Your task to perform on an android device: Add acer predator to the cart on amazon.com Image 0: 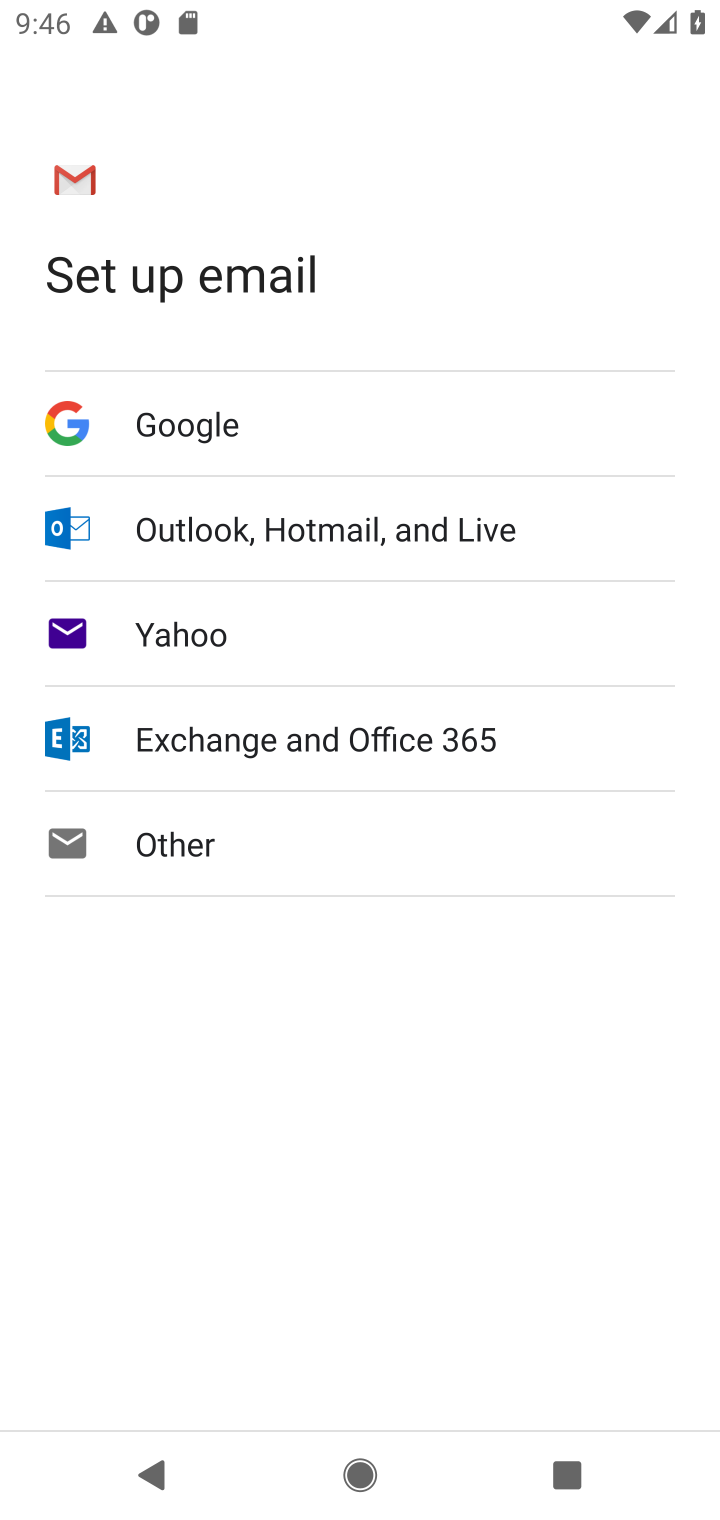
Step 0: press home button
Your task to perform on an android device: Add acer predator to the cart on amazon.com Image 1: 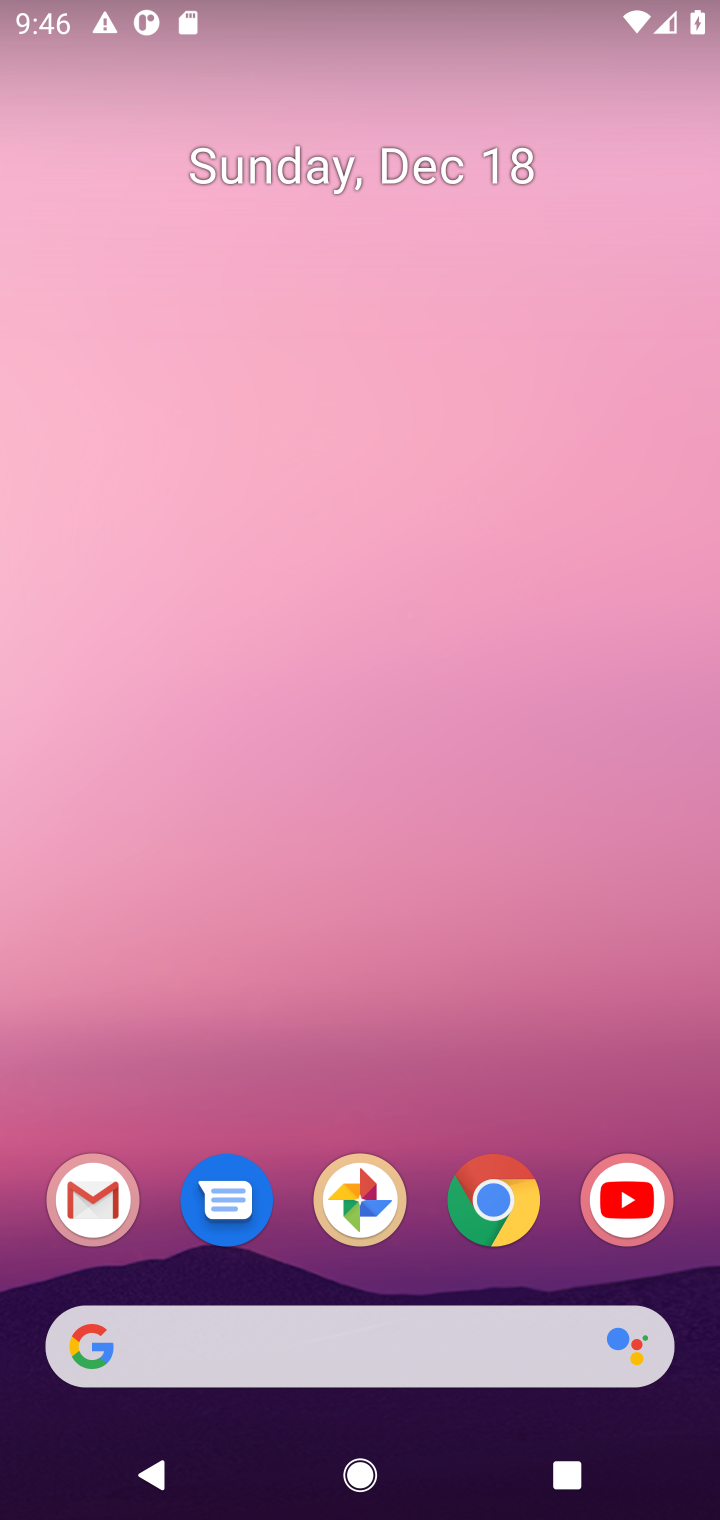
Step 1: click (495, 1199)
Your task to perform on an android device: Add acer predator to the cart on amazon.com Image 2: 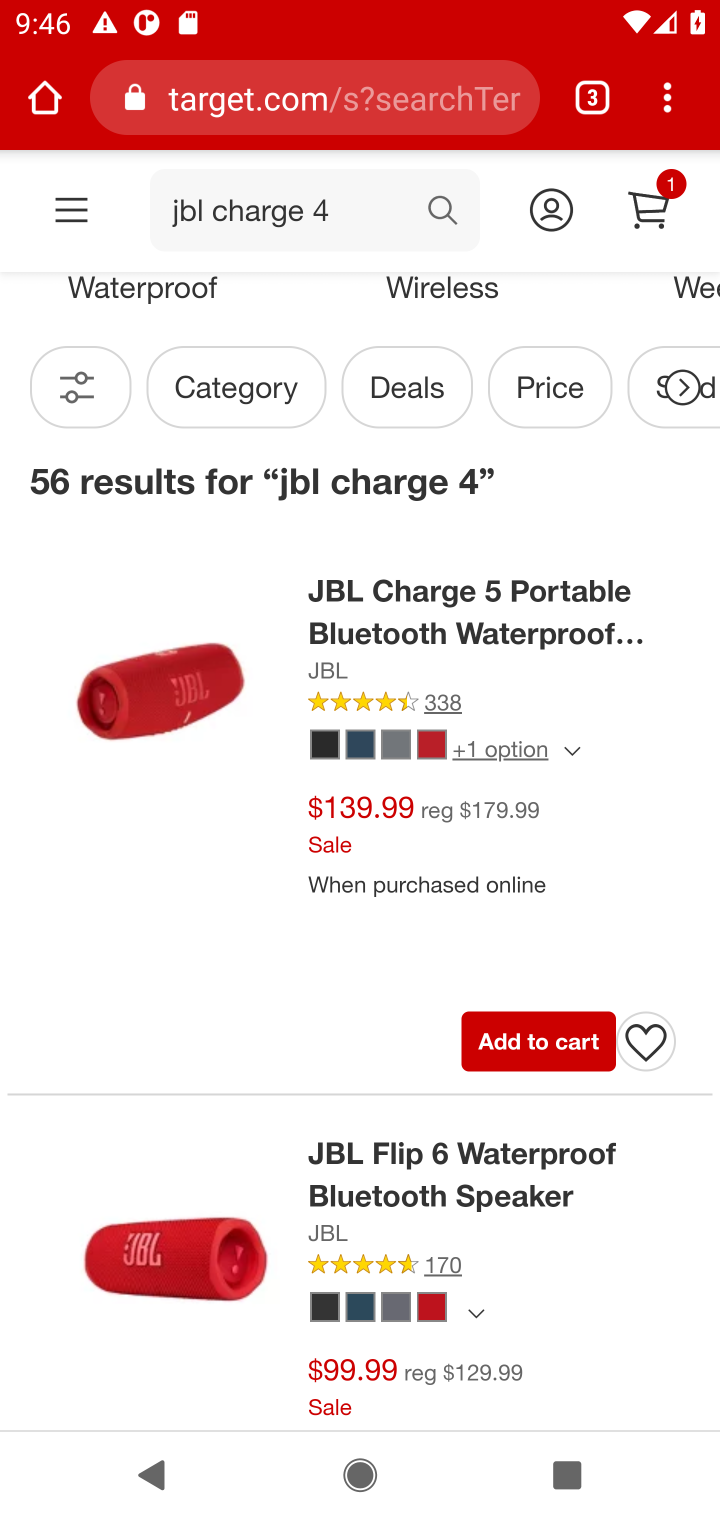
Step 2: click (236, 114)
Your task to perform on an android device: Add acer predator to the cart on amazon.com Image 3: 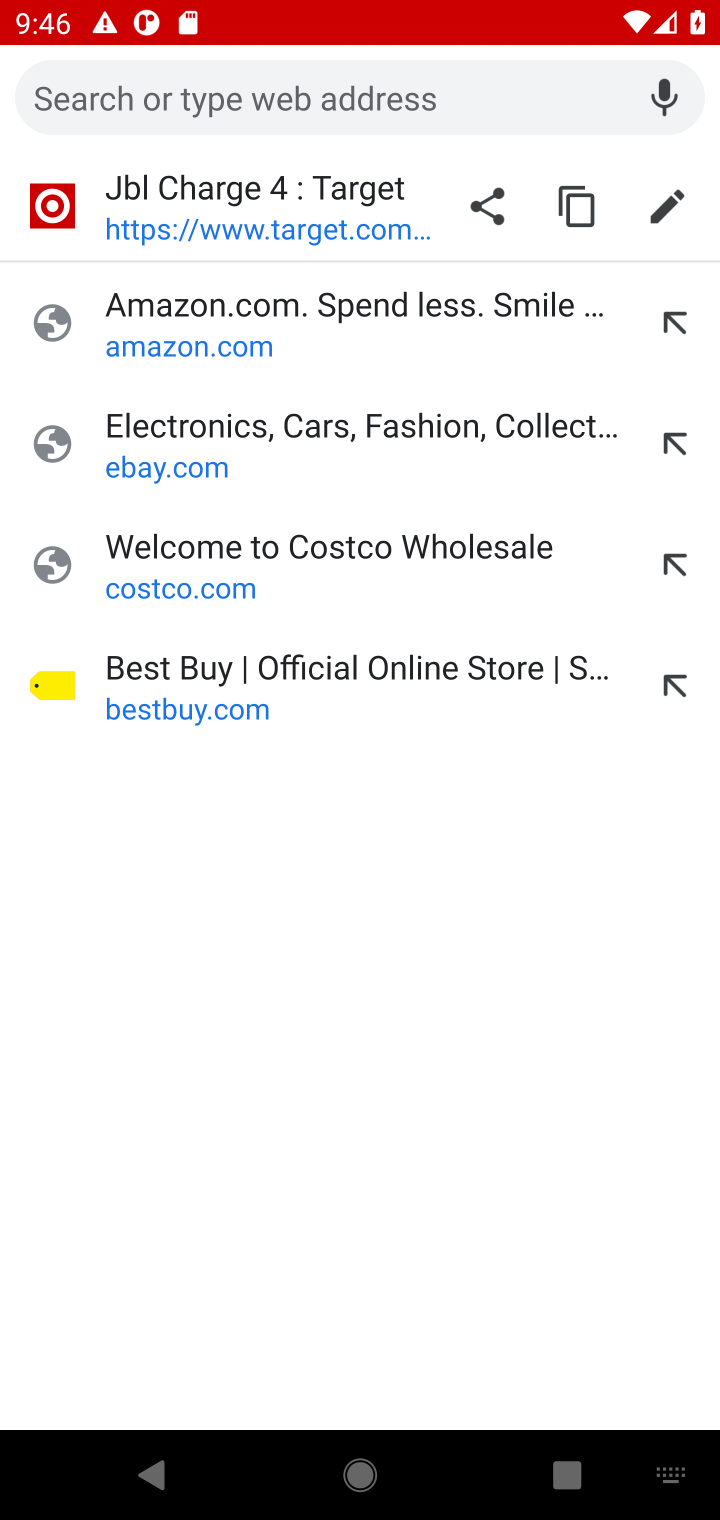
Step 3: click (144, 333)
Your task to perform on an android device: Add acer predator to the cart on amazon.com Image 4: 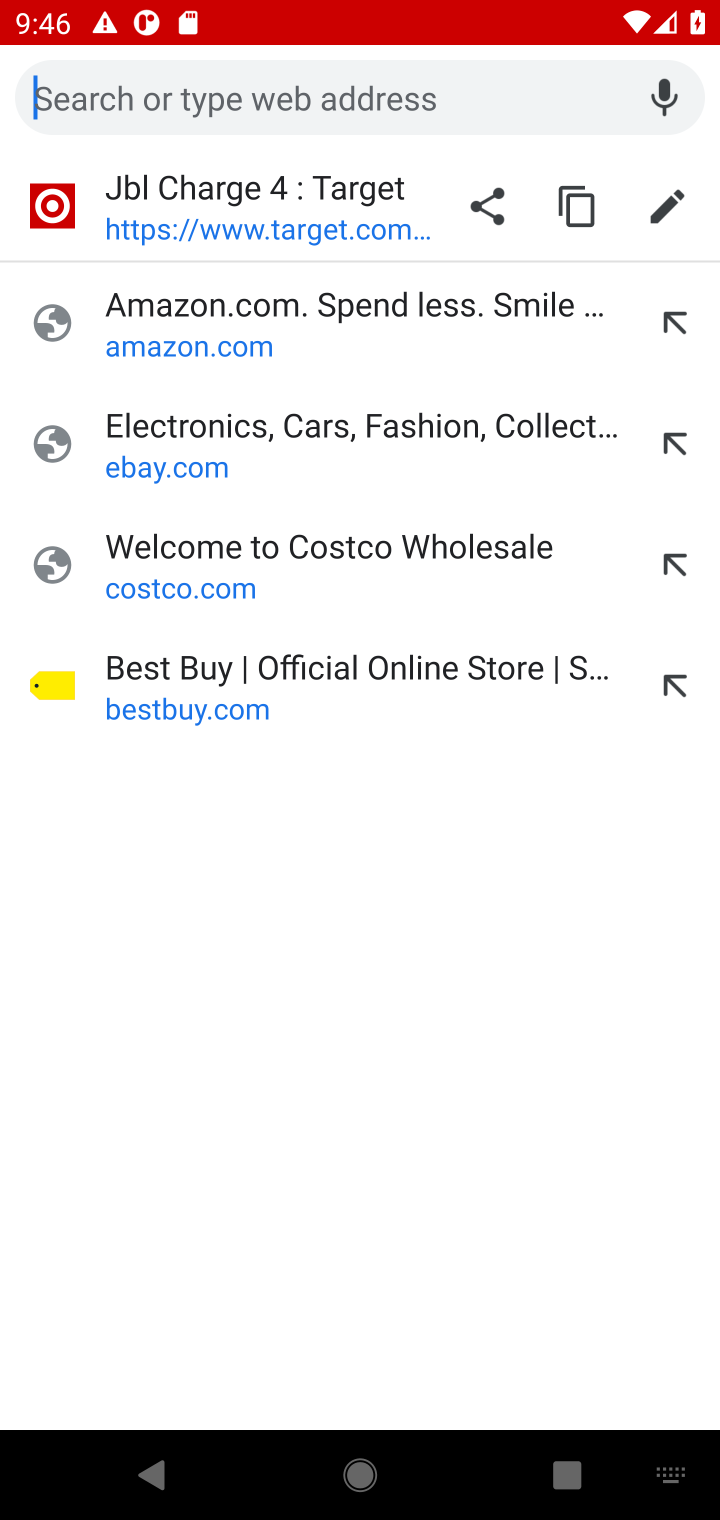
Step 4: click (172, 325)
Your task to perform on an android device: Add acer predator to the cart on amazon.com Image 5: 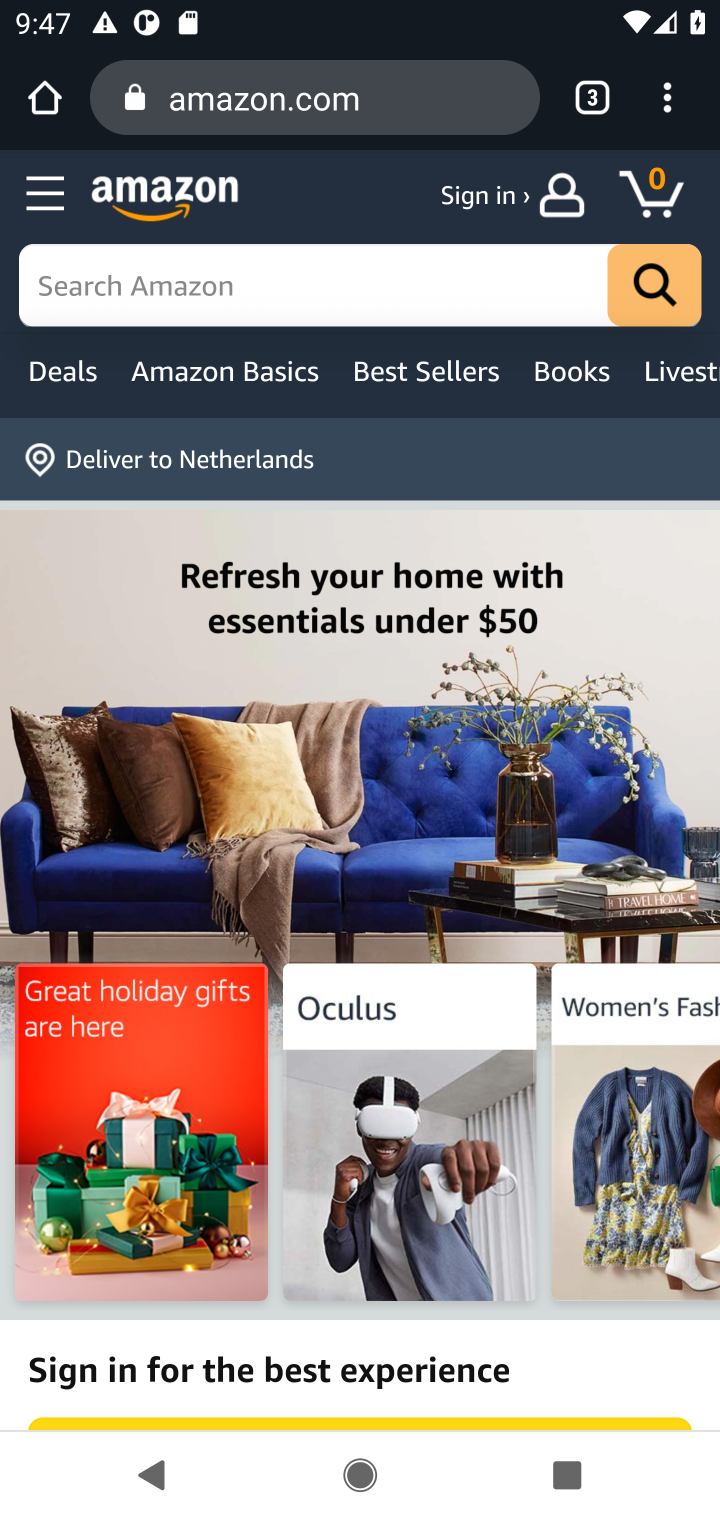
Step 5: click (153, 286)
Your task to perform on an android device: Add acer predator to the cart on amazon.com Image 6: 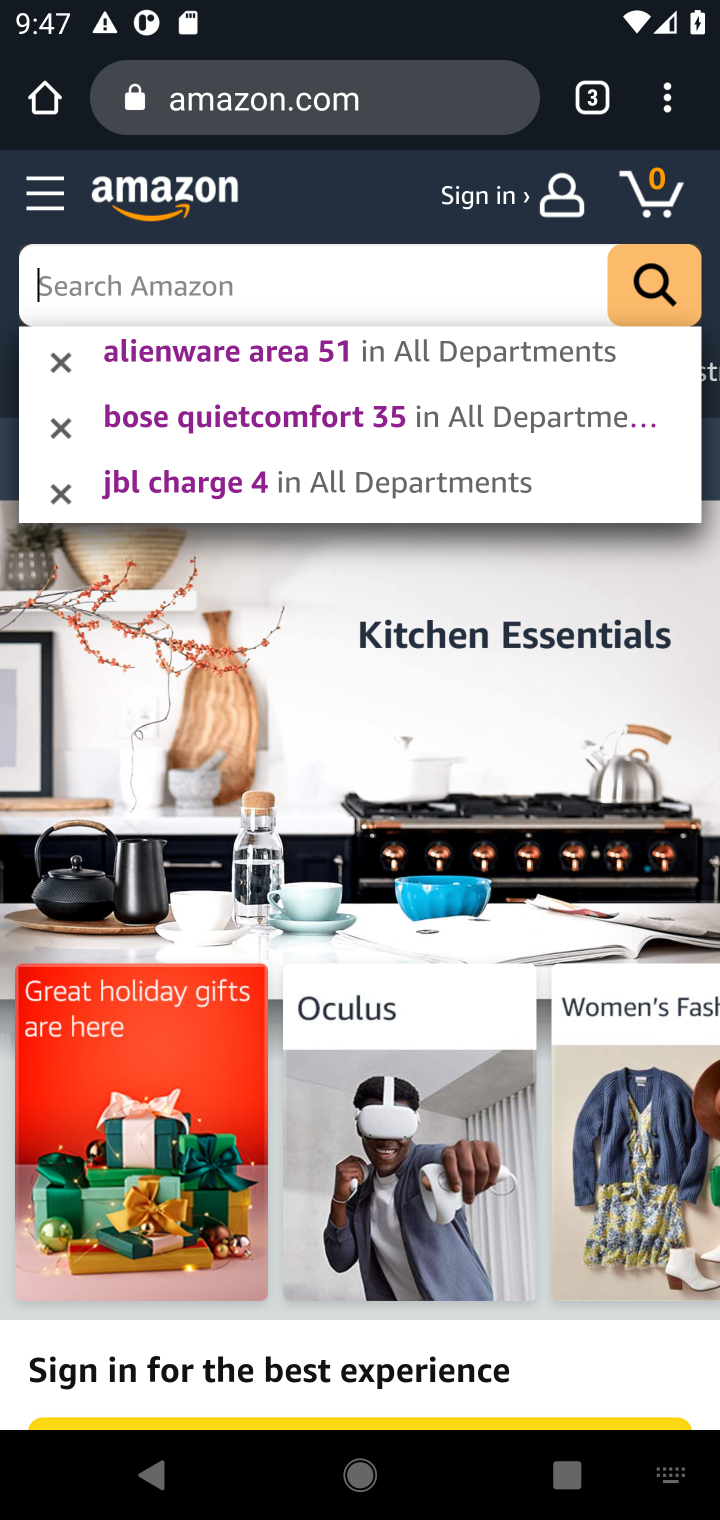
Step 6: type "acer predator"
Your task to perform on an android device: Add acer predator to the cart on amazon.com Image 7: 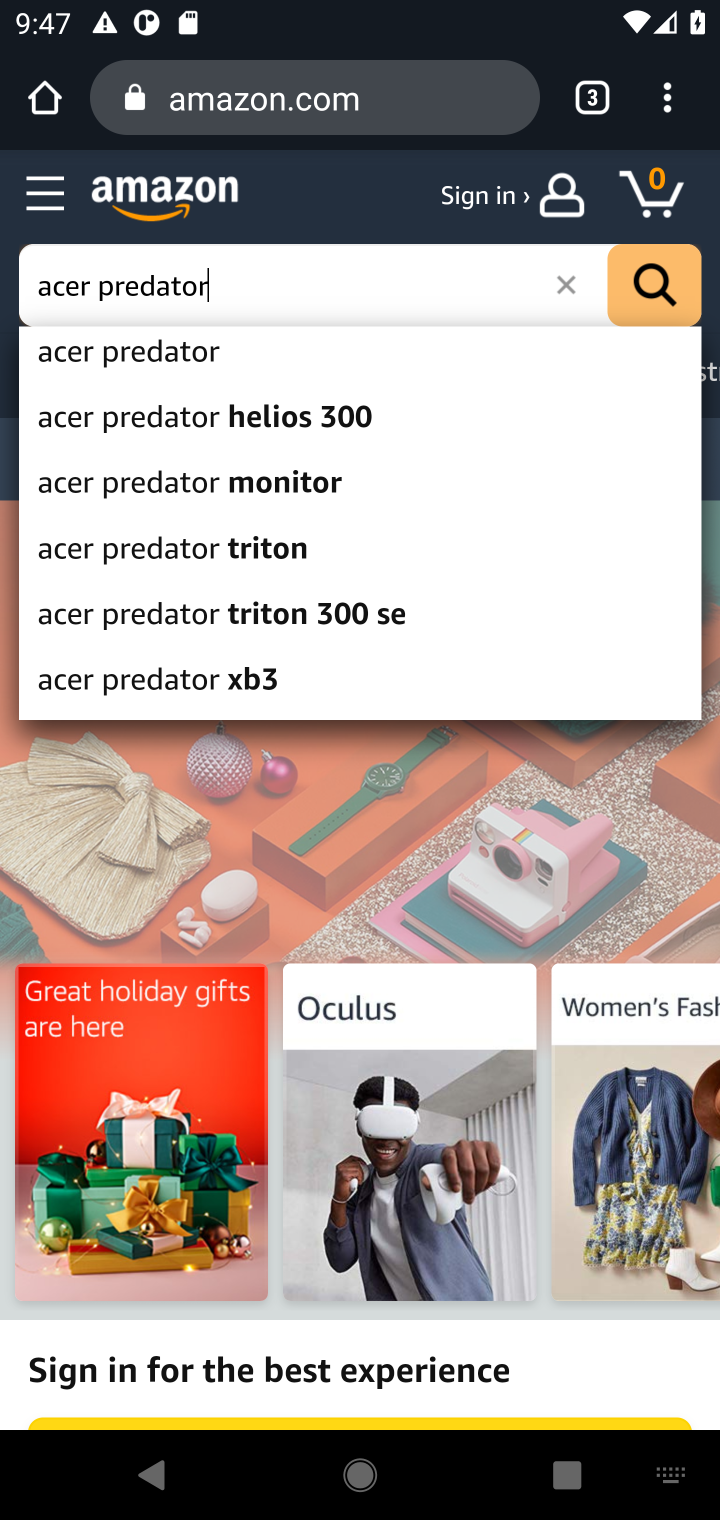
Step 7: click (131, 350)
Your task to perform on an android device: Add acer predator to the cart on amazon.com Image 8: 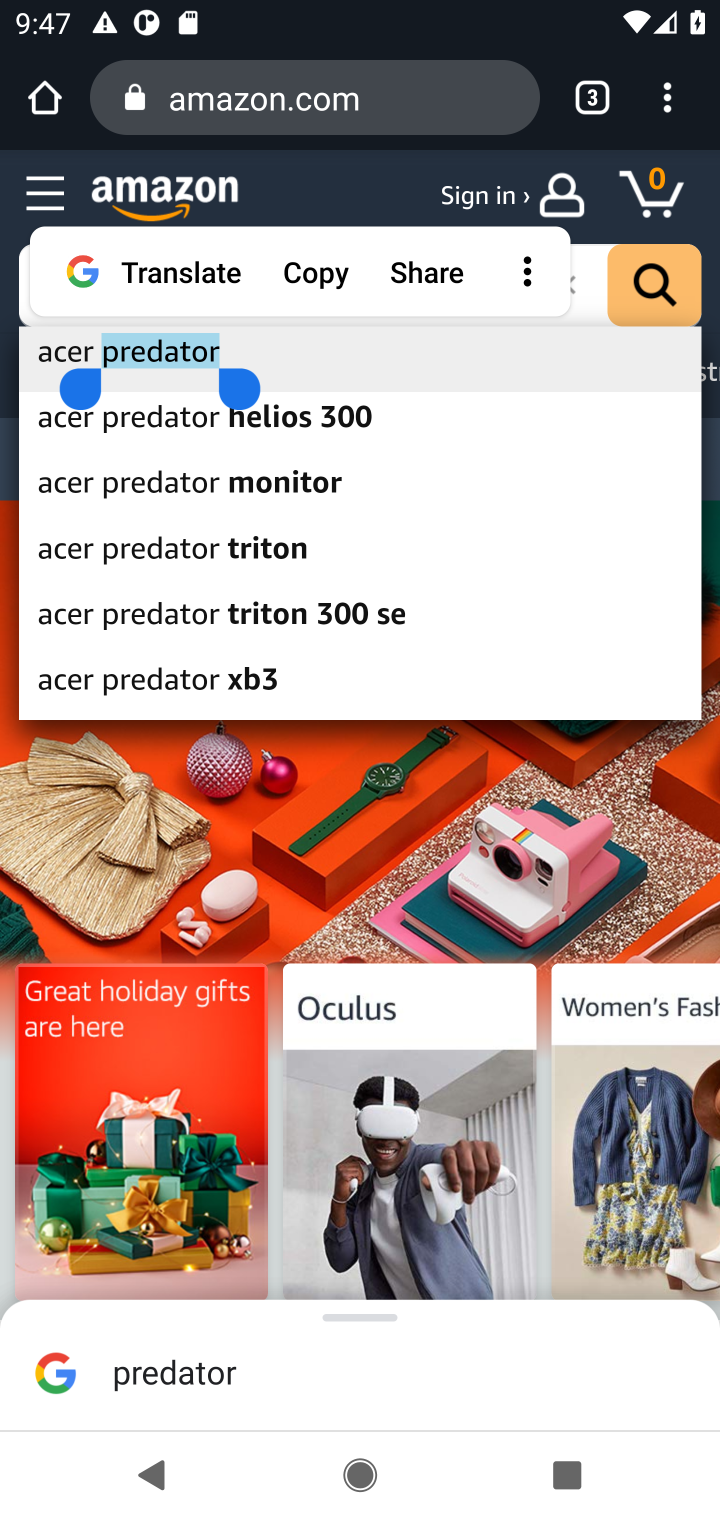
Step 8: click (79, 359)
Your task to perform on an android device: Add acer predator to the cart on amazon.com Image 9: 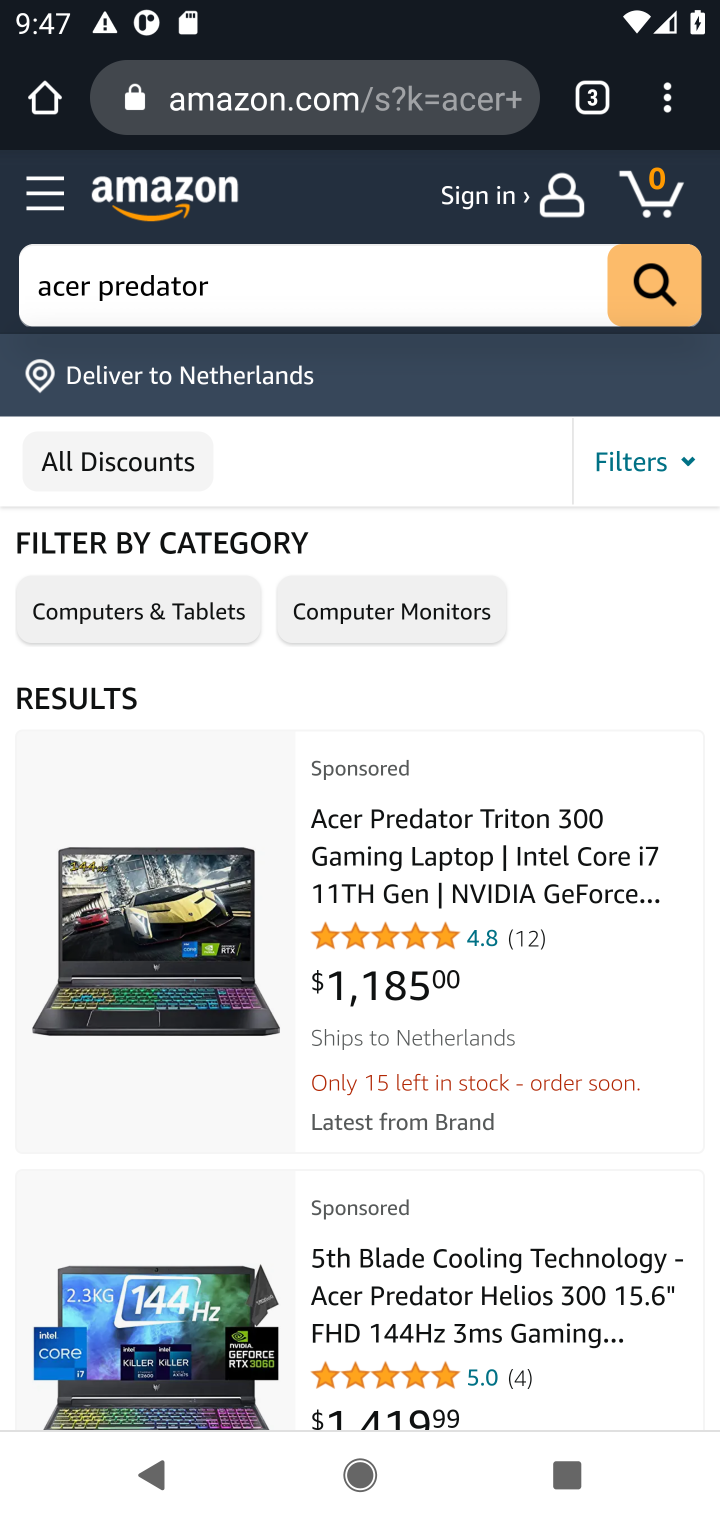
Step 9: click (399, 901)
Your task to perform on an android device: Add acer predator to the cart on amazon.com Image 10: 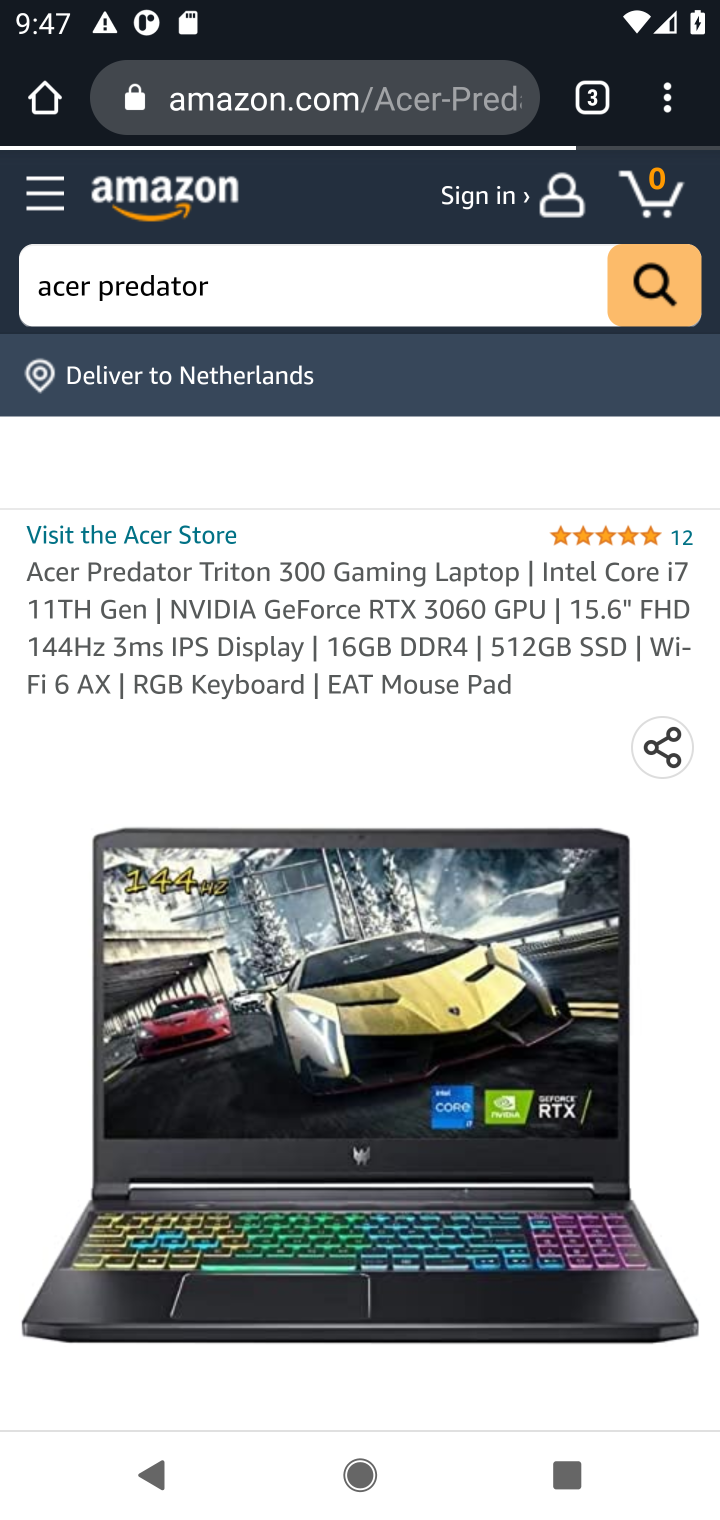
Step 10: drag from (318, 1143) to (307, 449)
Your task to perform on an android device: Add acer predator to the cart on amazon.com Image 11: 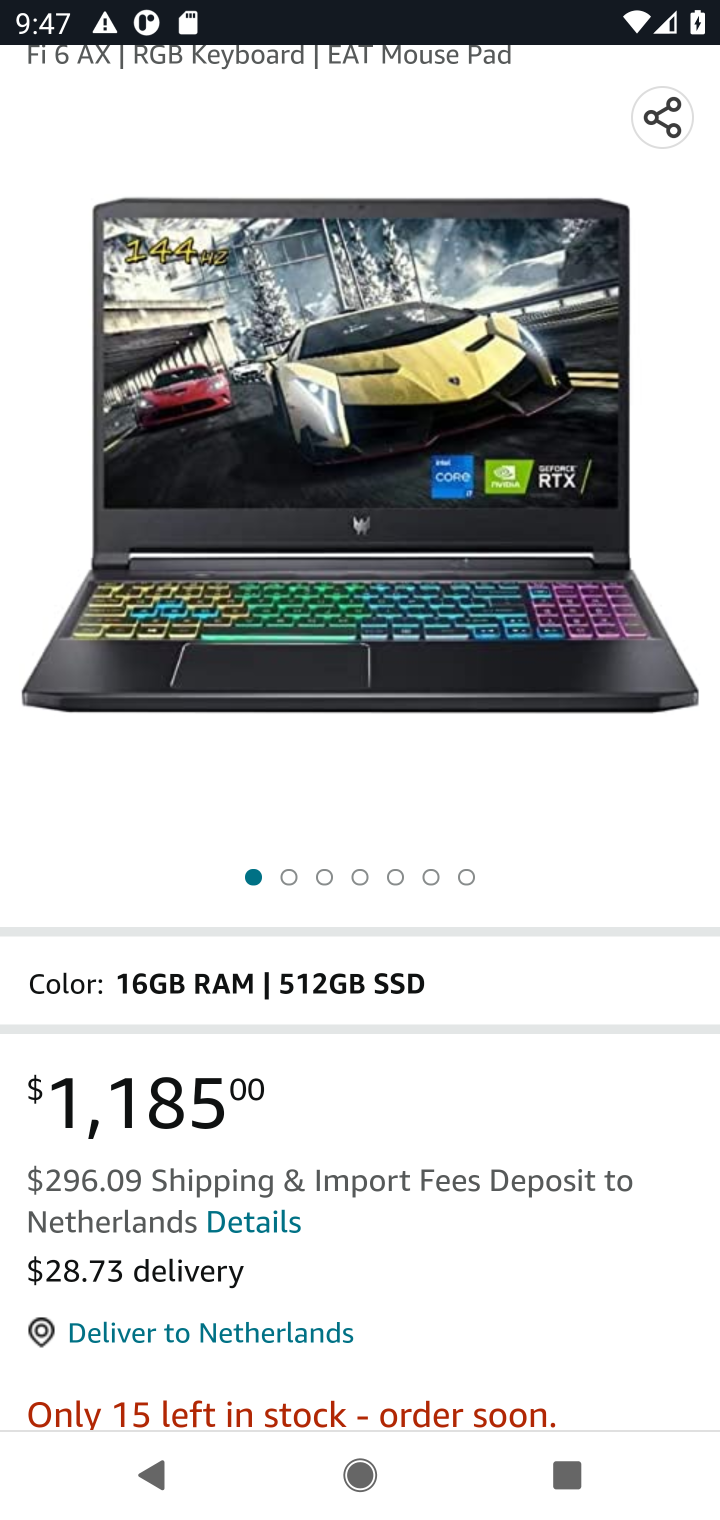
Step 11: drag from (312, 1075) to (279, 357)
Your task to perform on an android device: Add acer predator to the cart on amazon.com Image 12: 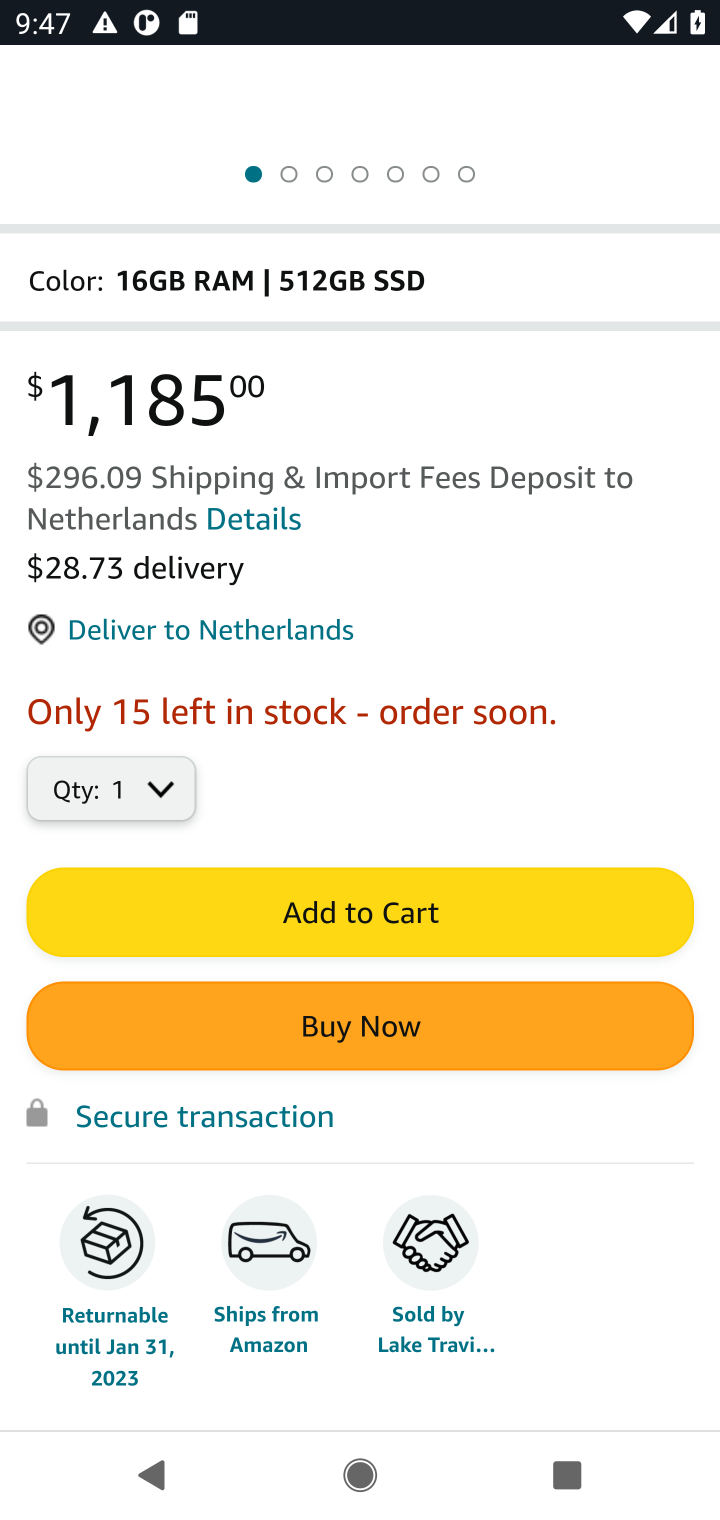
Step 12: click (304, 906)
Your task to perform on an android device: Add acer predator to the cart on amazon.com Image 13: 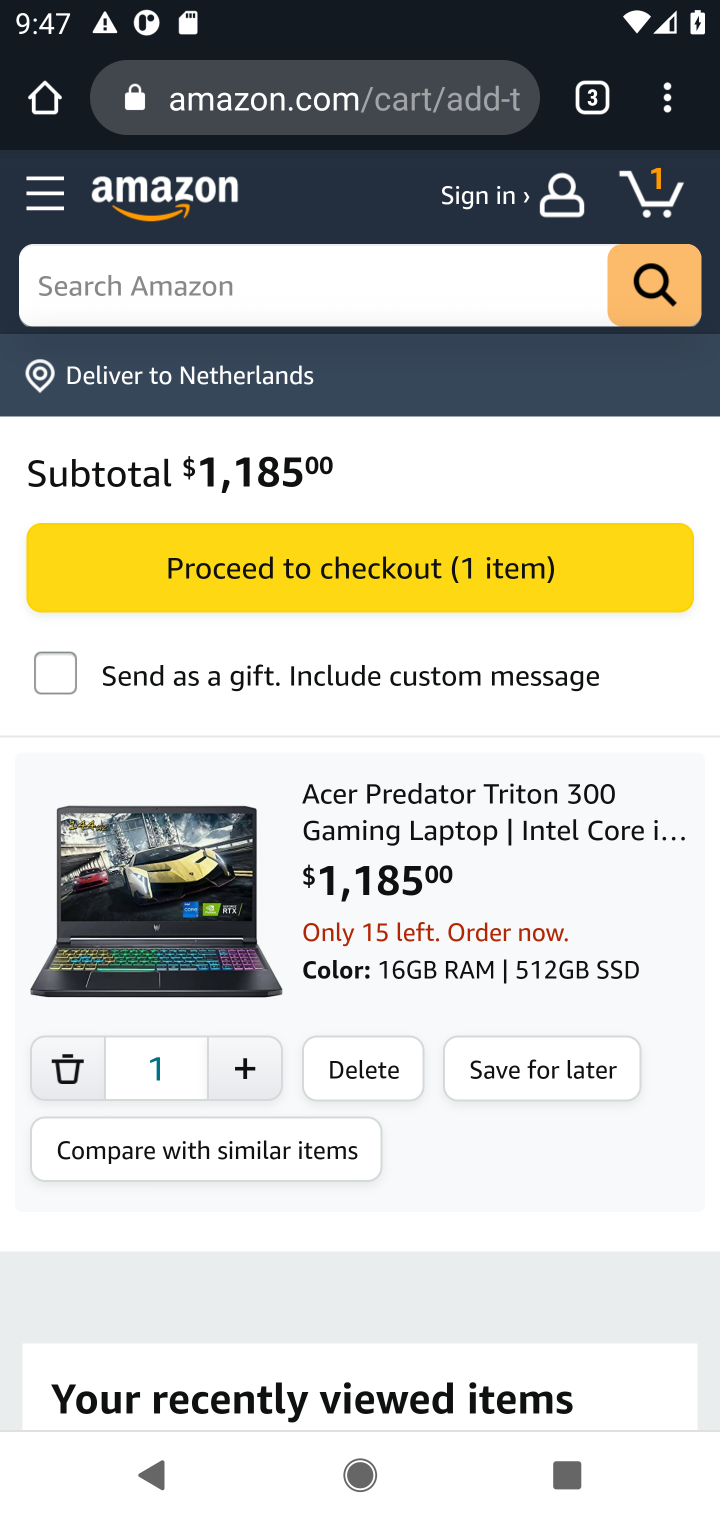
Step 13: task complete